Your task to perform on an android device: Go to network settings Image 0: 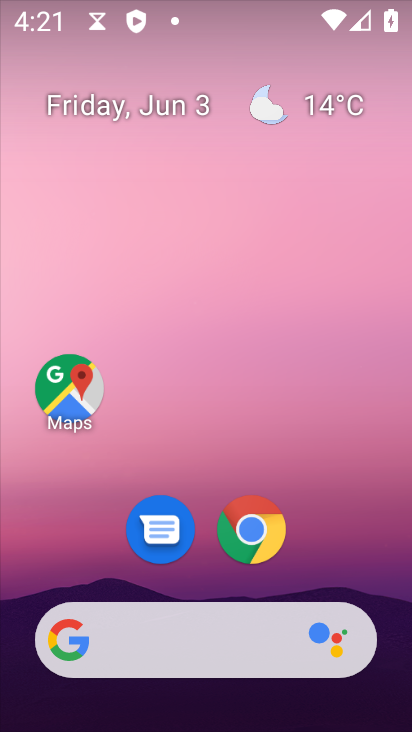
Step 0: drag from (339, 479) to (303, 82)
Your task to perform on an android device: Go to network settings Image 1: 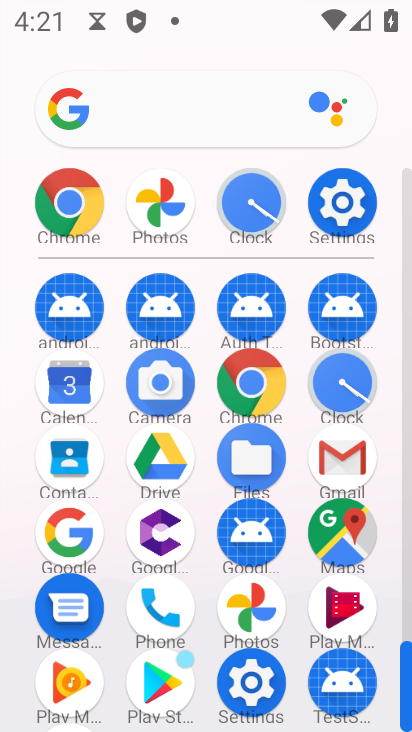
Step 1: click (345, 208)
Your task to perform on an android device: Go to network settings Image 2: 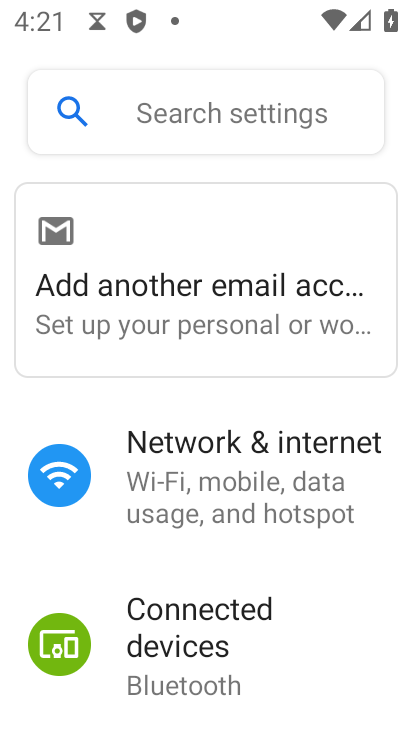
Step 2: click (190, 439)
Your task to perform on an android device: Go to network settings Image 3: 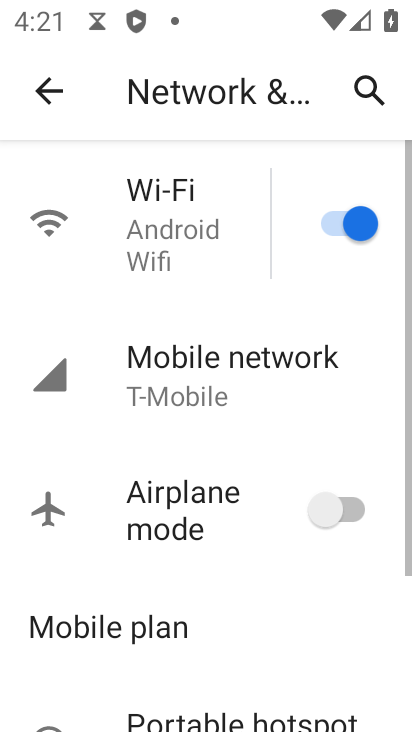
Step 3: task complete